Your task to perform on an android device: Open the calendar app, open the side menu, and click the "Day" option Image 0: 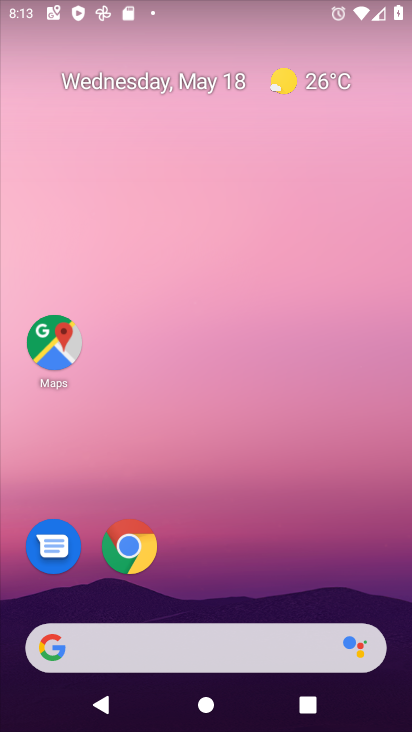
Step 0: drag from (365, 596) to (290, 46)
Your task to perform on an android device: Open the calendar app, open the side menu, and click the "Day" option Image 1: 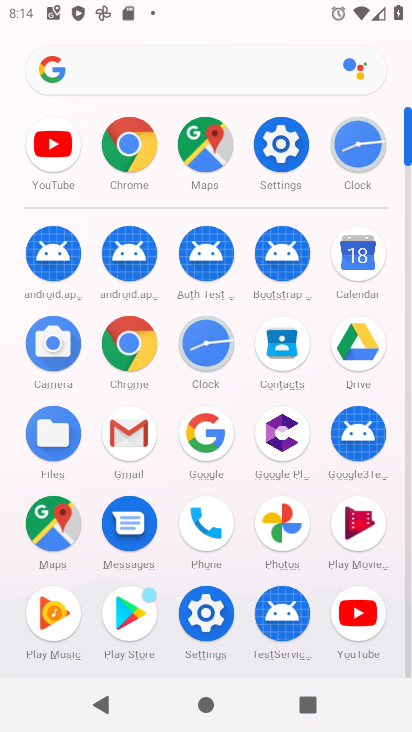
Step 1: click (350, 256)
Your task to perform on an android device: Open the calendar app, open the side menu, and click the "Day" option Image 2: 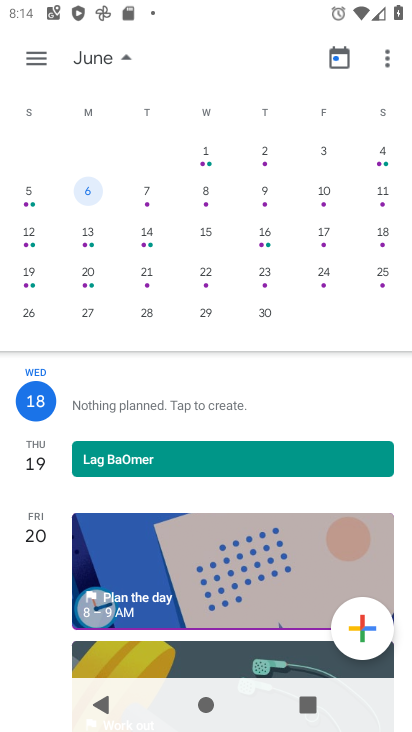
Step 2: click (40, 68)
Your task to perform on an android device: Open the calendar app, open the side menu, and click the "Day" option Image 3: 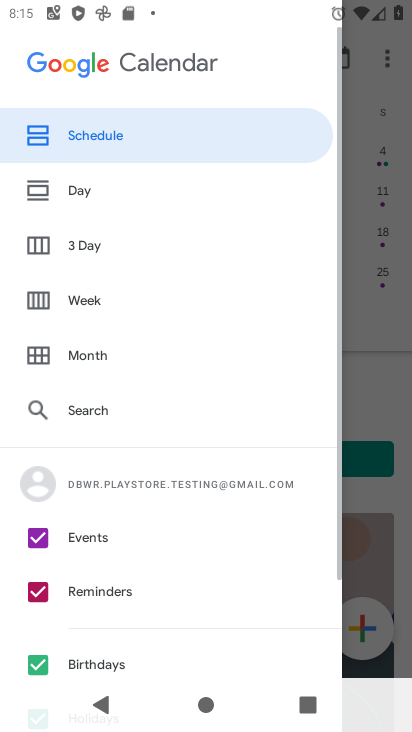
Step 3: click (125, 201)
Your task to perform on an android device: Open the calendar app, open the side menu, and click the "Day" option Image 4: 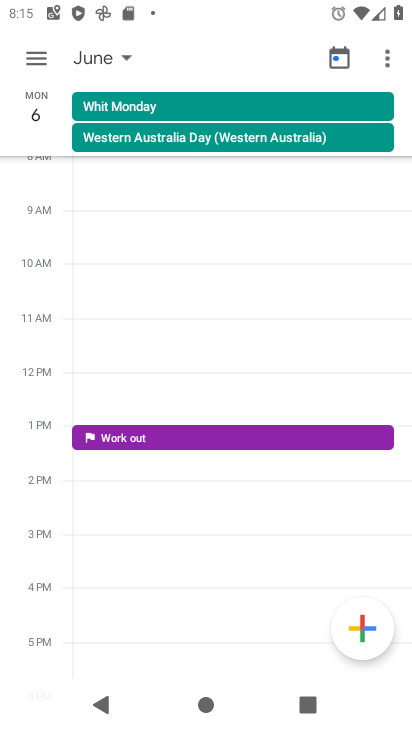
Step 4: task complete